Your task to perform on an android device: Open Reddit.com Image 0: 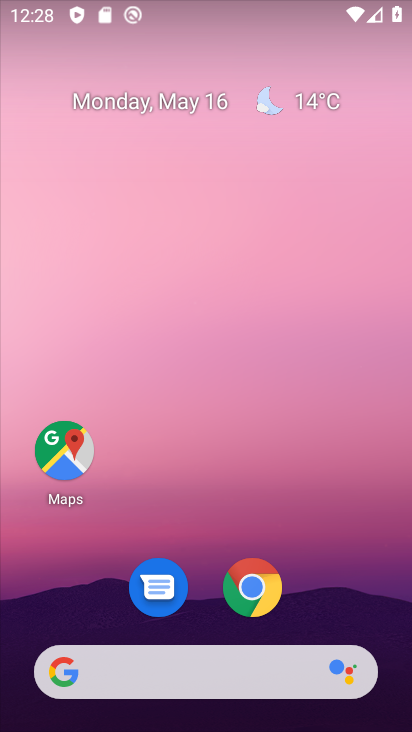
Step 0: click (256, 592)
Your task to perform on an android device: Open Reddit.com Image 1: 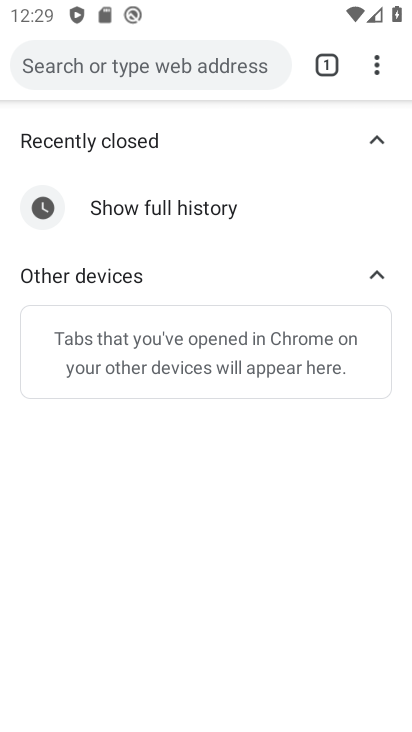
Step 1: click (202, 58)
Your task to perform on an android device: Open Reddit.com Image 2: 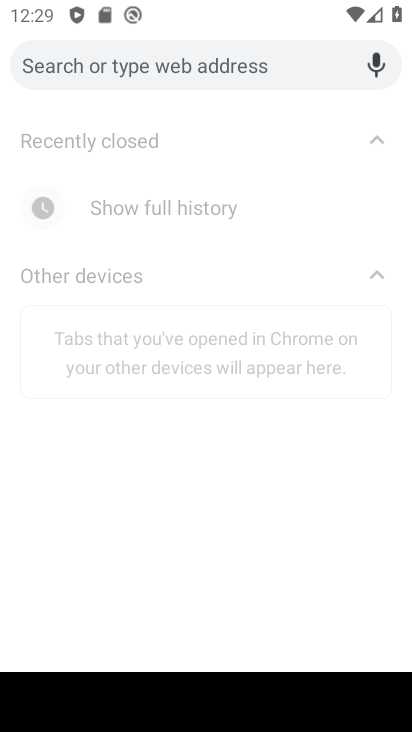
Step 2: type "Reddit .com"
Your task to perform on an android device: Open Reddit.com Image 3: 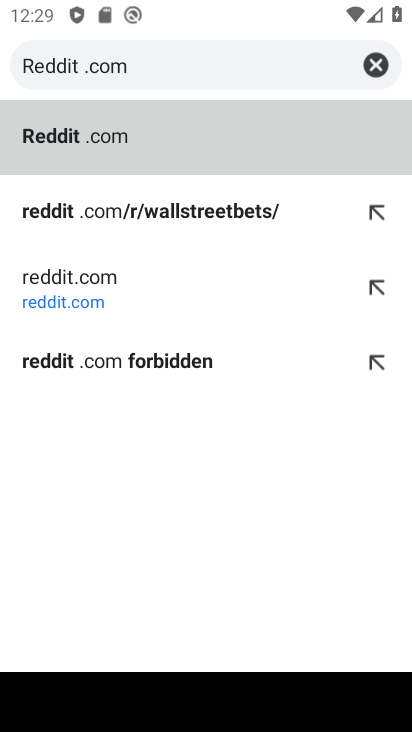
Step 3: click (54, 131)
Your task to perform on an android device: Open Reddit.com Image 4: 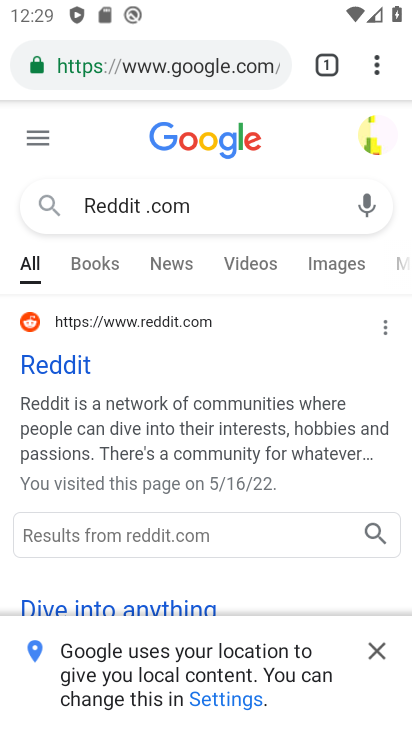
Step 4: click (61, 363)
Your task to perform on an android device: Open Reddit.com Image 5: 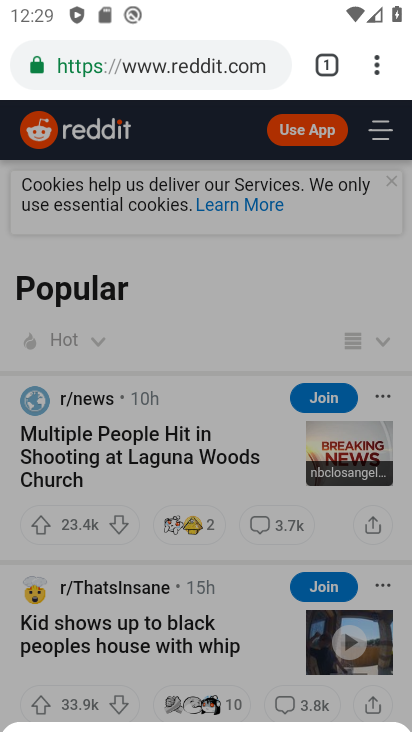
Step 5: task complete